Your task to perform on an android device: Open calendar and show me the third week of next month Image 0: 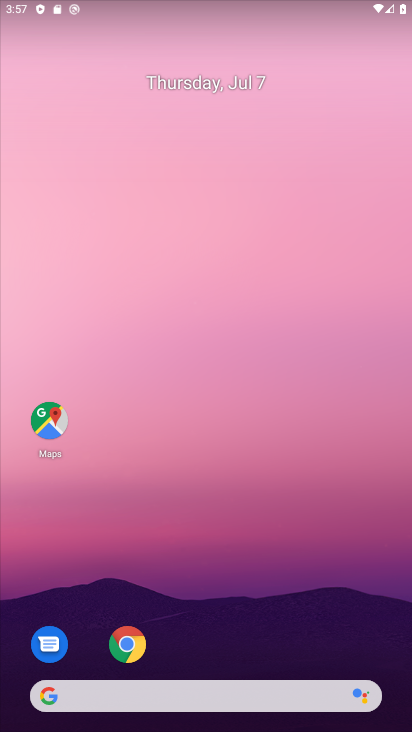
Step 0: drag from (210, 643) to (247, 161)
Your task to perform on an android device: Open calendar and show me the third week of next month Image 1: 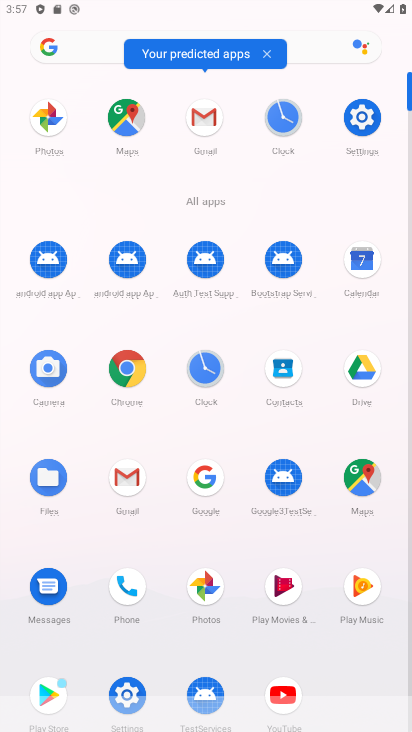
Step 1: click (347, 242)
Your task to perform on an android device: Open calendar and show me the third week of next month Image 2: 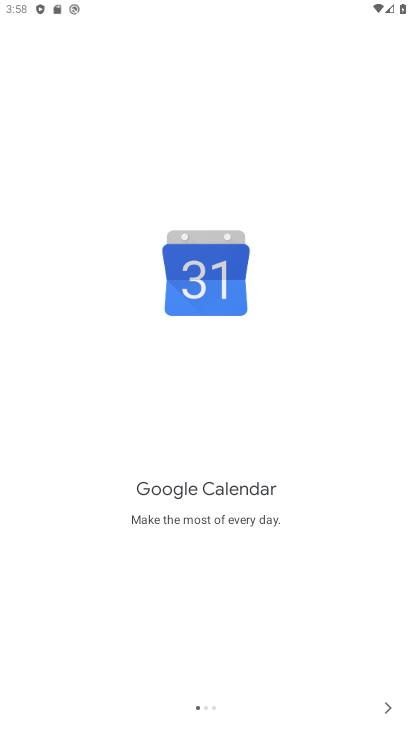
Step 2: click (381, 710)
Your task to perform on an android device: Open calendar and show me the third week of next month Image 3: 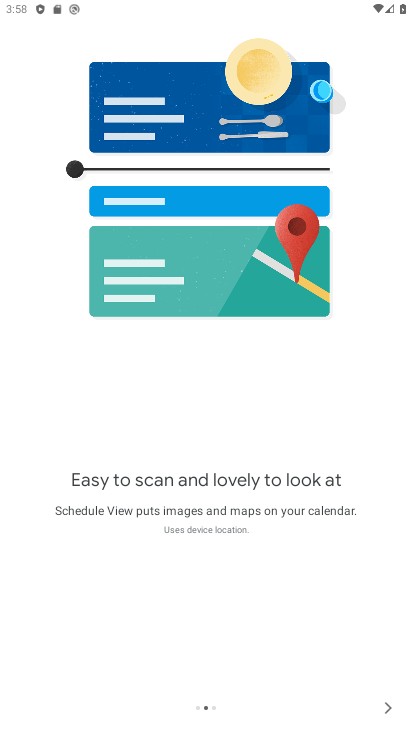
Step 3: click (381, 710)
Your task to perform on an android device: Open calendar and show me the third week of next month Image 4: 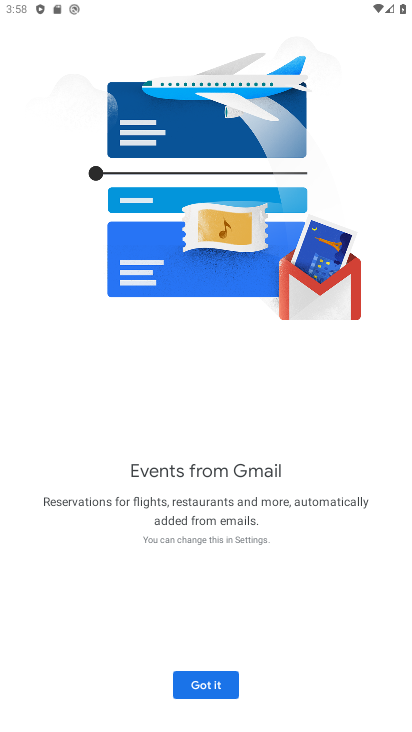
Step 4: click (193, 689)
Your task to perform on an android device: Open calendar and show me the third week of next month Image 5: 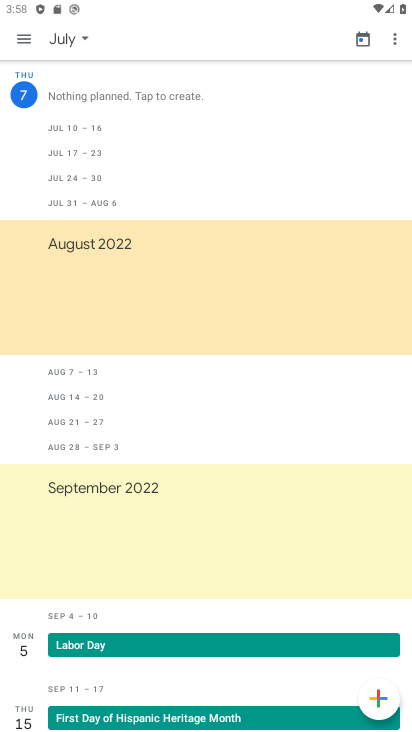
Step 5: click (84, 51)
Your task to perform on an android device: Open calendar and show me the third week of next month Image 6: 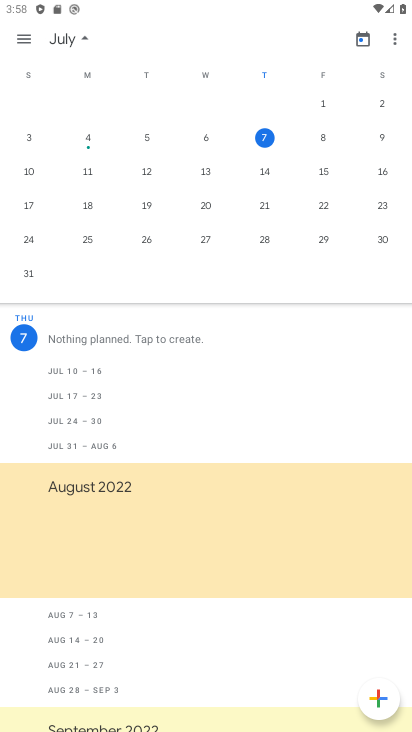
Step 6: drag from (360, 214) to (91, 216)
Your task to perform on an android device: Open calendar and show me the third week of next month Image 7: 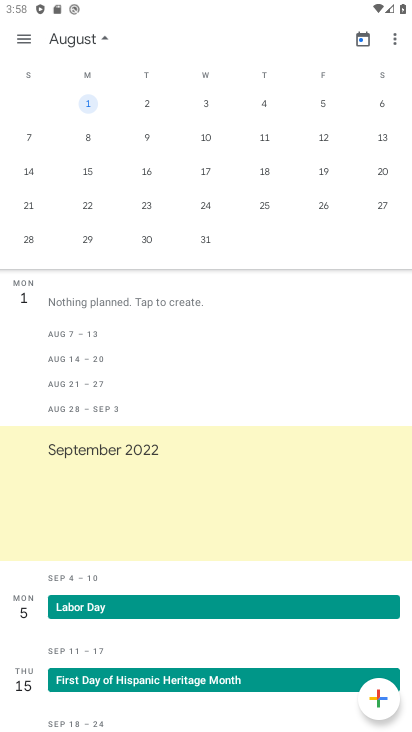
Step 7: click (92, 170)
Your task to perform on an android device: Open calendar and show me the third week of next month Image 8: 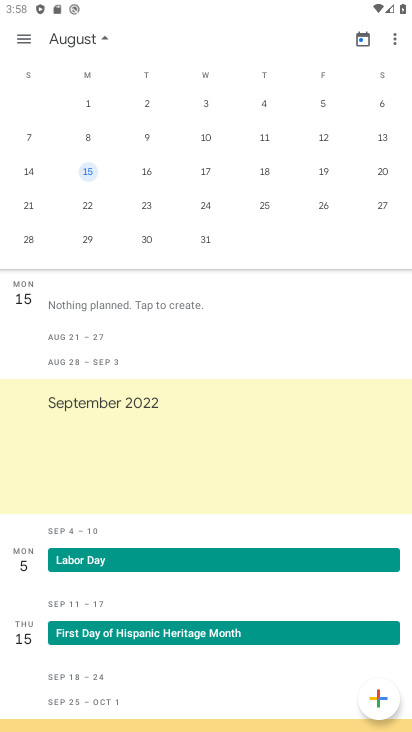
Step 8: task complete